Your task to perform on an android device: change the clock display to analog Image 0: 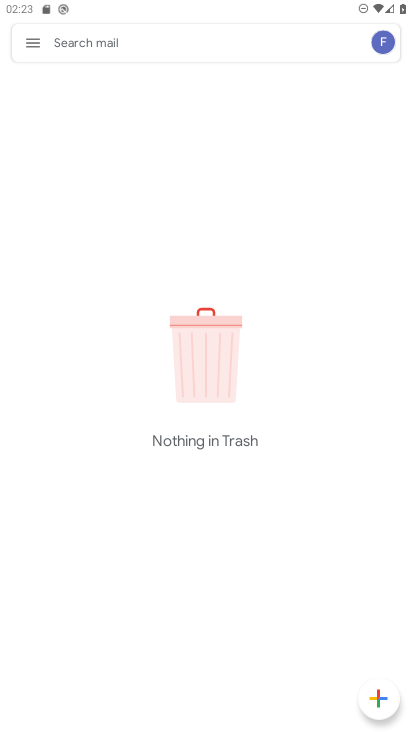
Step 0: press home button
Your task to perform on an android device: change the clock display to analog Image 1: 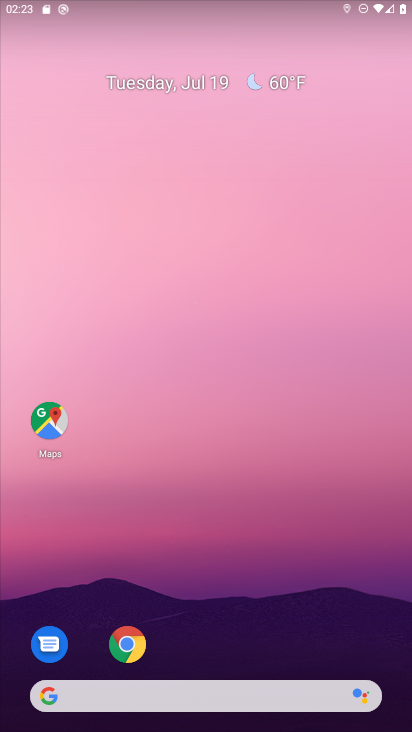
Step 1: drag from (226, 672) to (198, 194)
Your task to perform on an android device: change the clock display to analog Image 2: 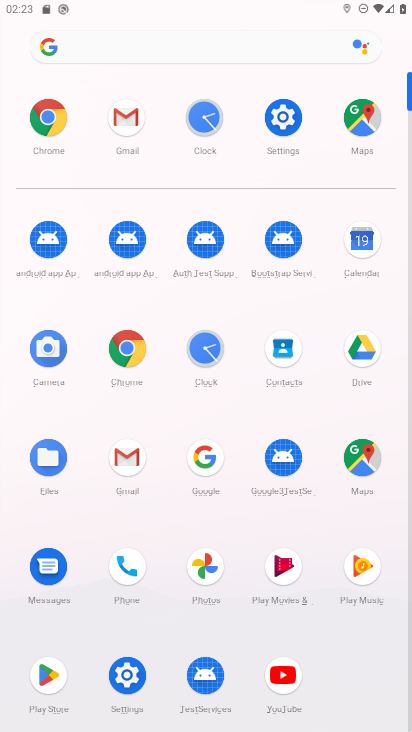
Step 2: click (199, 122)
Your task to perform on an android device: change the clock display to analog Image 3: 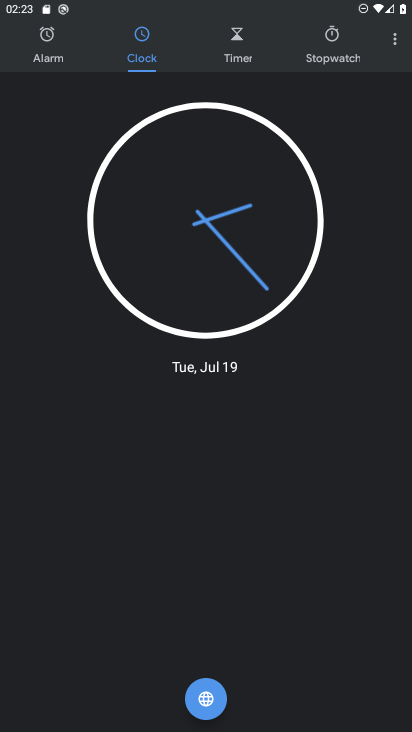
Step 3: drag from (397, 45) to (336, 71)
Your task to perform on an android device: change the clock display to analog Image 4: 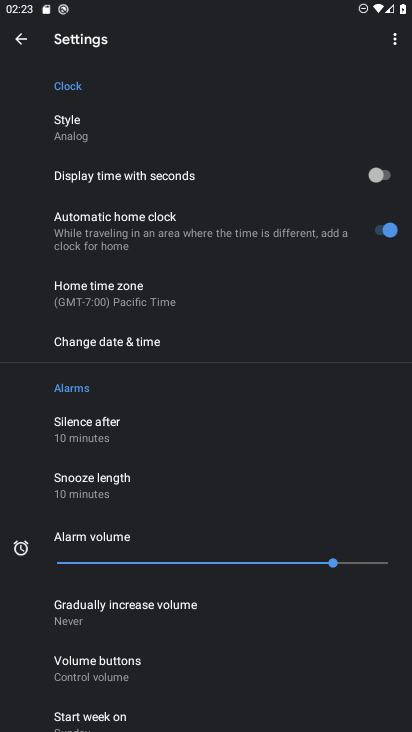
Step 4: click (69, 128)
Your task to perform on an android device: change the clock display to analog Image 5: 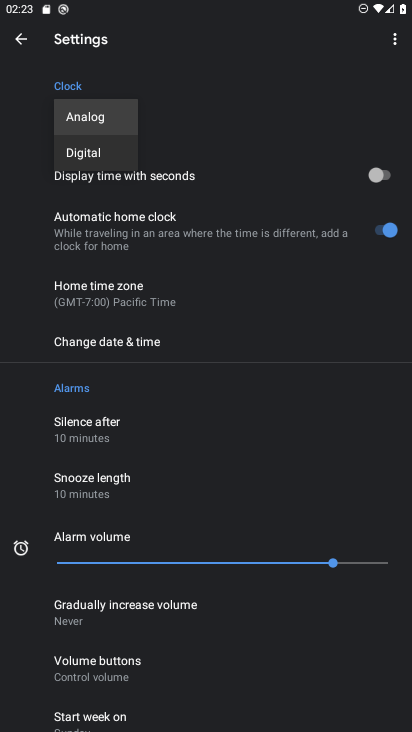
Step 5: click (91, 116)
Your task to perform on an android device: change the clock display to analog Image 6: 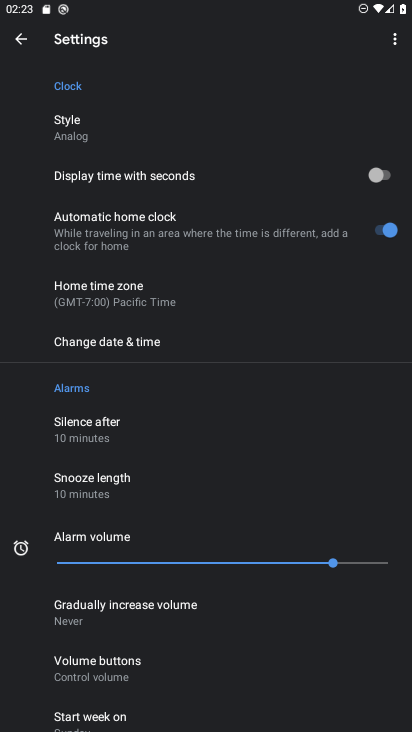
Step 6: task complete